Your task to perform on an android device: open a bookmark in the chrome app Image 0: 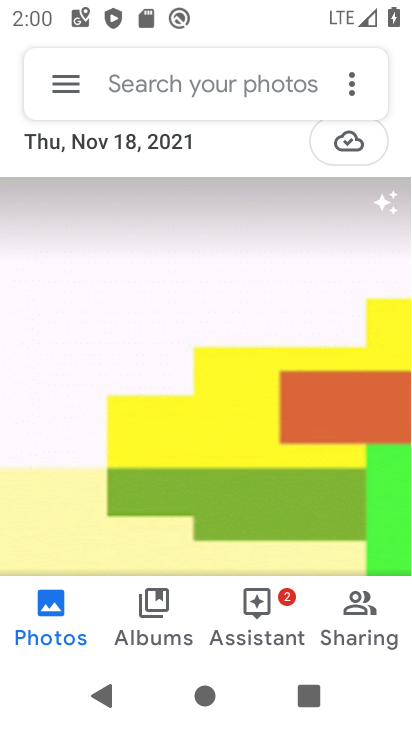
Step 0: press home button
Your task to perform on an android device: open a bookmark in the chrome app Image 1: 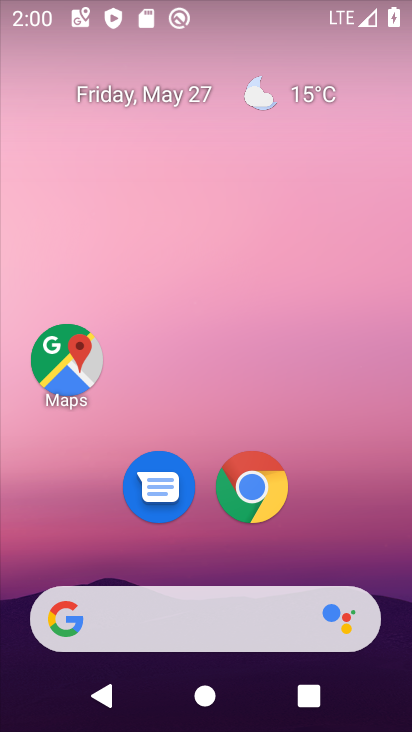
Step 1: click (264, 490)
Your task to perform on an android device: open a bookmark in the chrome app Image 2: 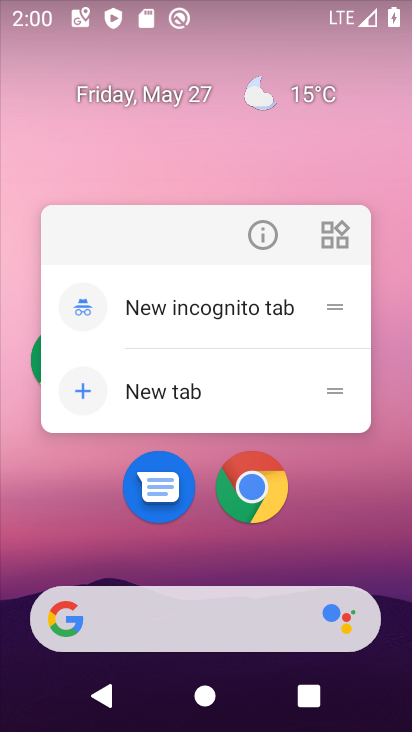
Step 2: click (245, 489)
Your task to perform on an android device: open a bookmark in the chrome app Image 3: 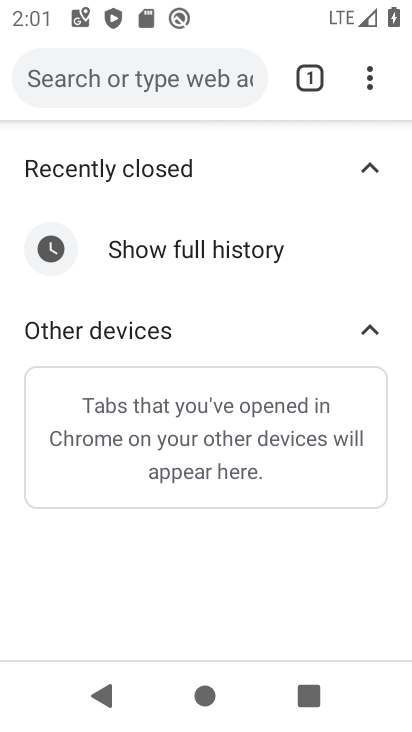
Step 3: task complete